Your task to perform on an android device: set an alarm Image 0: 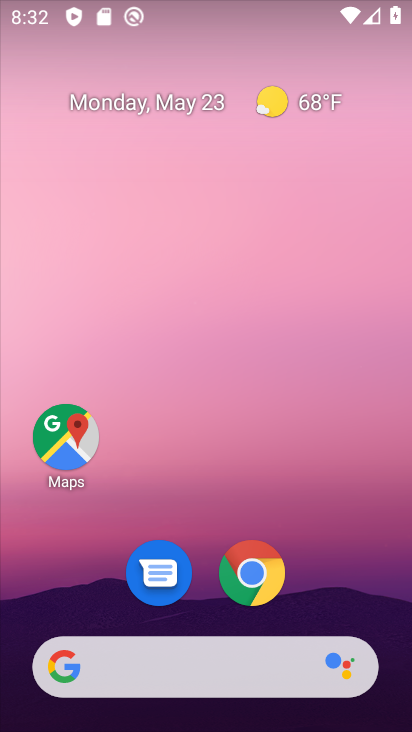
Step 0: press home button
Your task to perform on an android device: set an alarm Image 1: 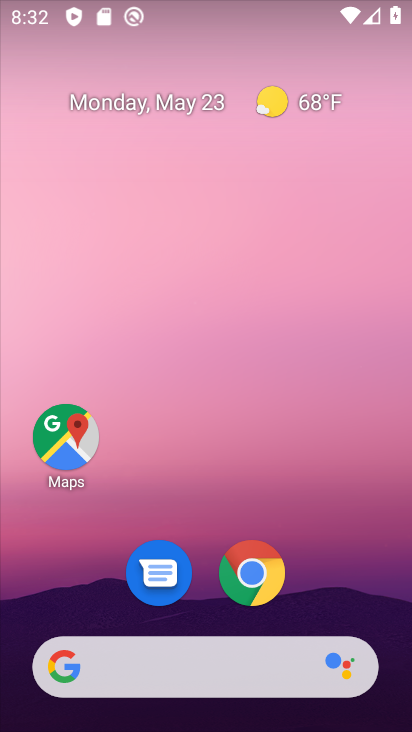
Step 1: drag from (205, 610) to (248, 177)
Your task to perform on an android device: set an alarm Image 2: 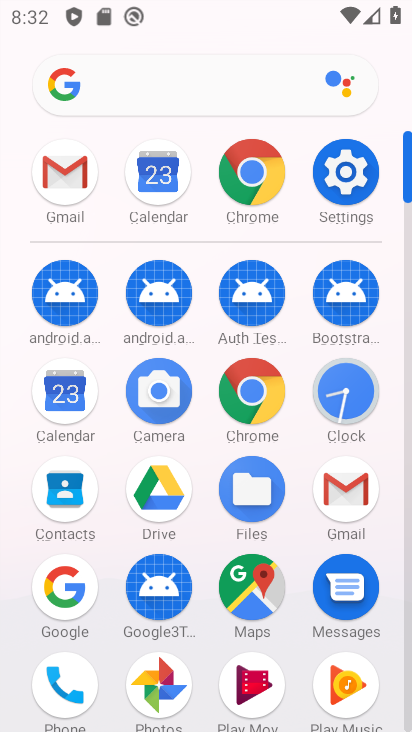
Step 2: click (345, 385)
Your task to perform on an android device: set an alarm Image 3: 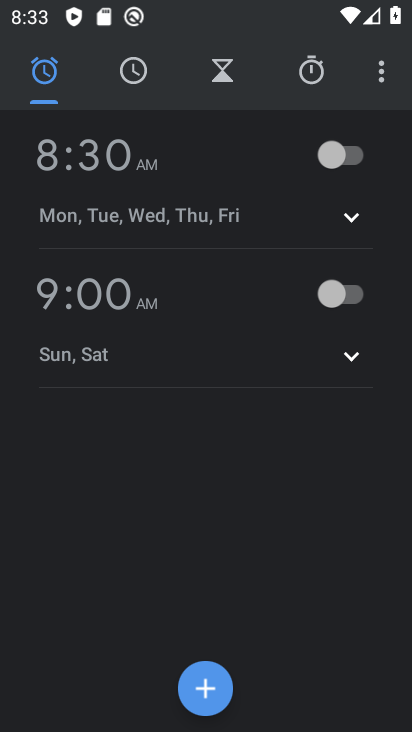
Step 3: click (355, 146)
Your task to perform on an android device: set an alarm Image 4: 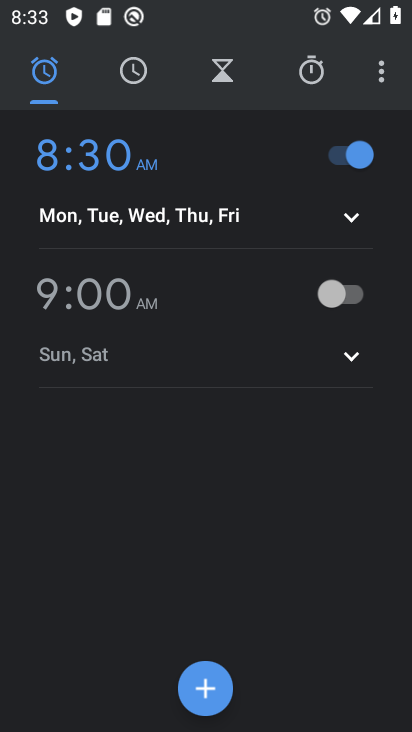
Step 4: task complete